Your task to perform on an android device: Open my contact list Image 0: 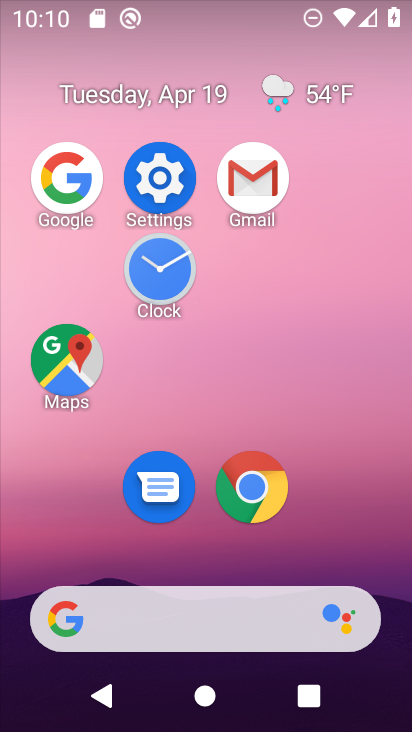
Step 0: drag from (258, 538) to (301, 139)
Your task to perform on an android device: Open my contact list Image 1: 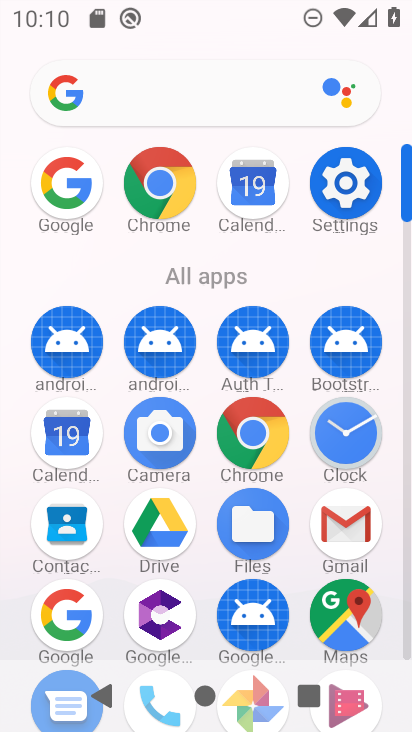
Step 1: click (74, 527)
Your task to perform on an android device: Open my contact list Image 2: 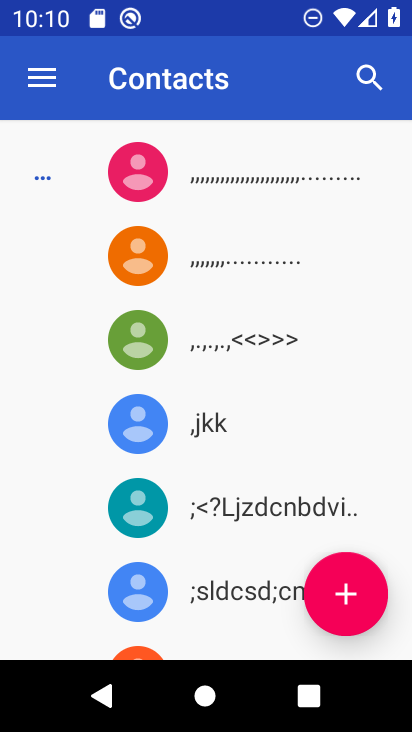
Step 2: task complete